Your task to perform on an android device: open chrome privacy settings Image 0: 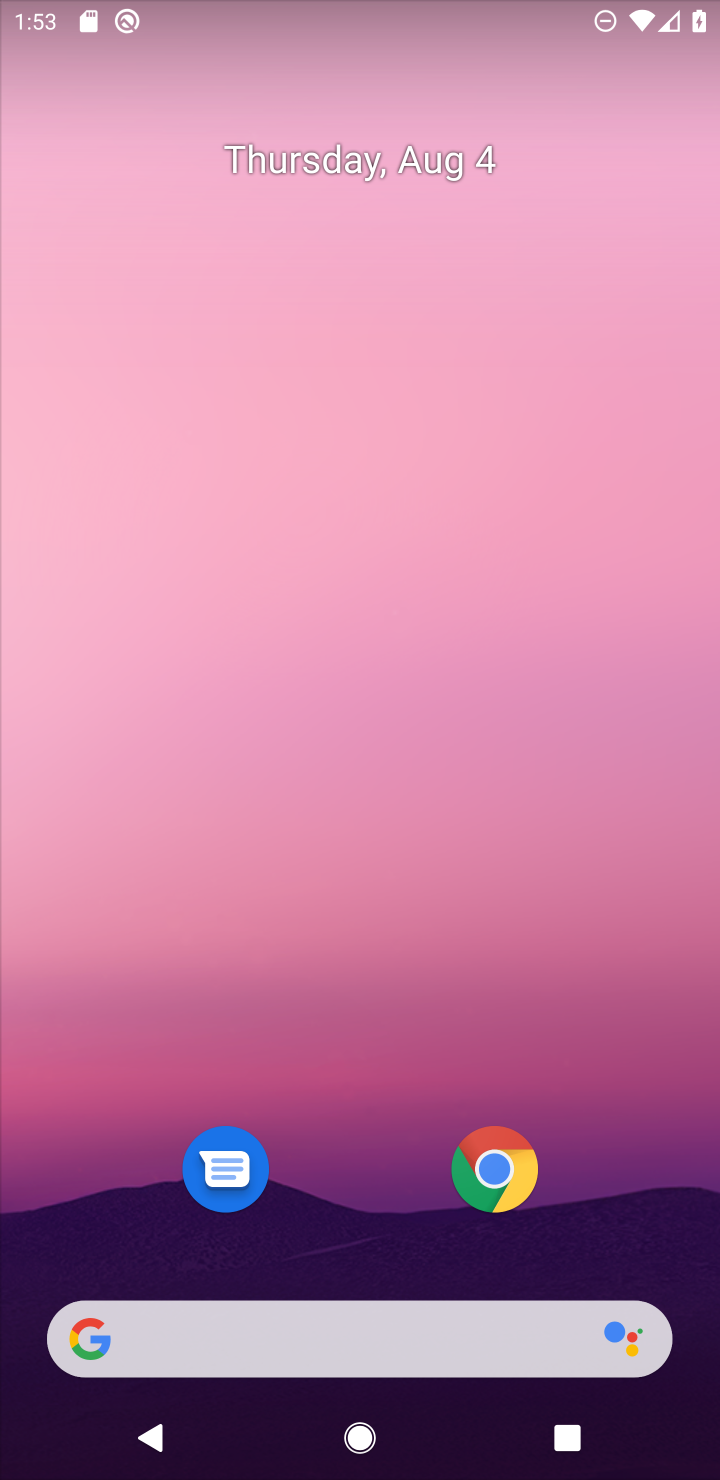
Step 0: click (501, 1187)
Your task to perform on an android device: open chrome privacy settings Image 1: 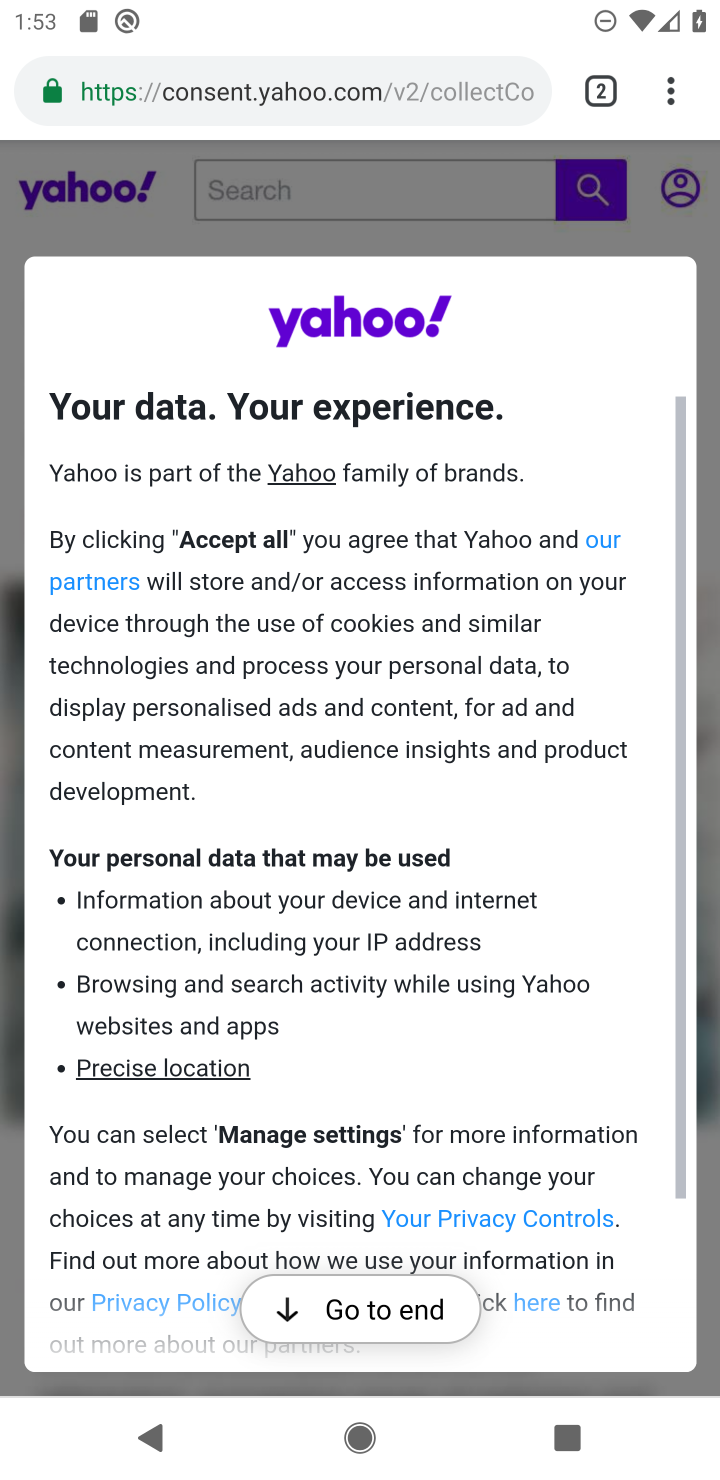
Step 1: click (672, 87)
Your task to perform on an android device: open chrome privacy settings Image 2: 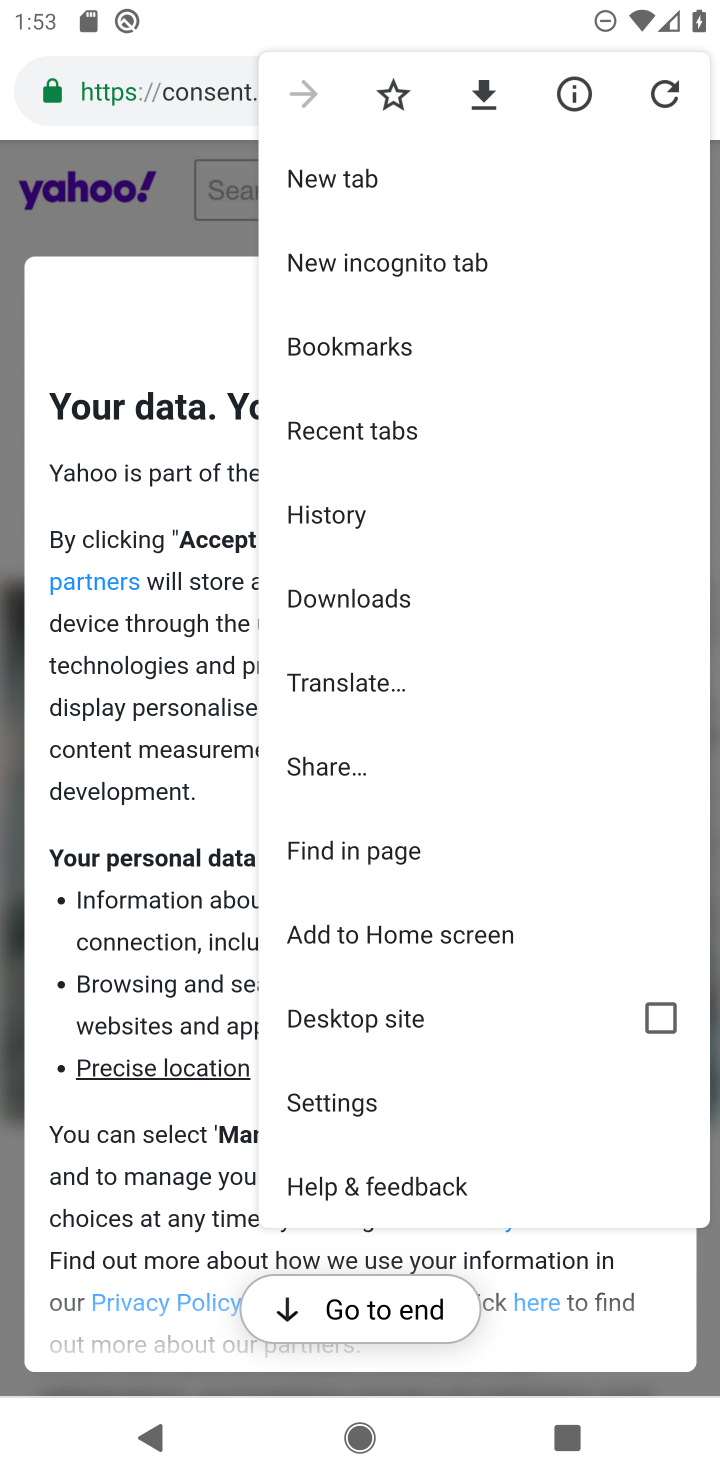
Step 2: click (347, 1114)
Your task to perform on an android device: open chrome privacy settings Image 3: 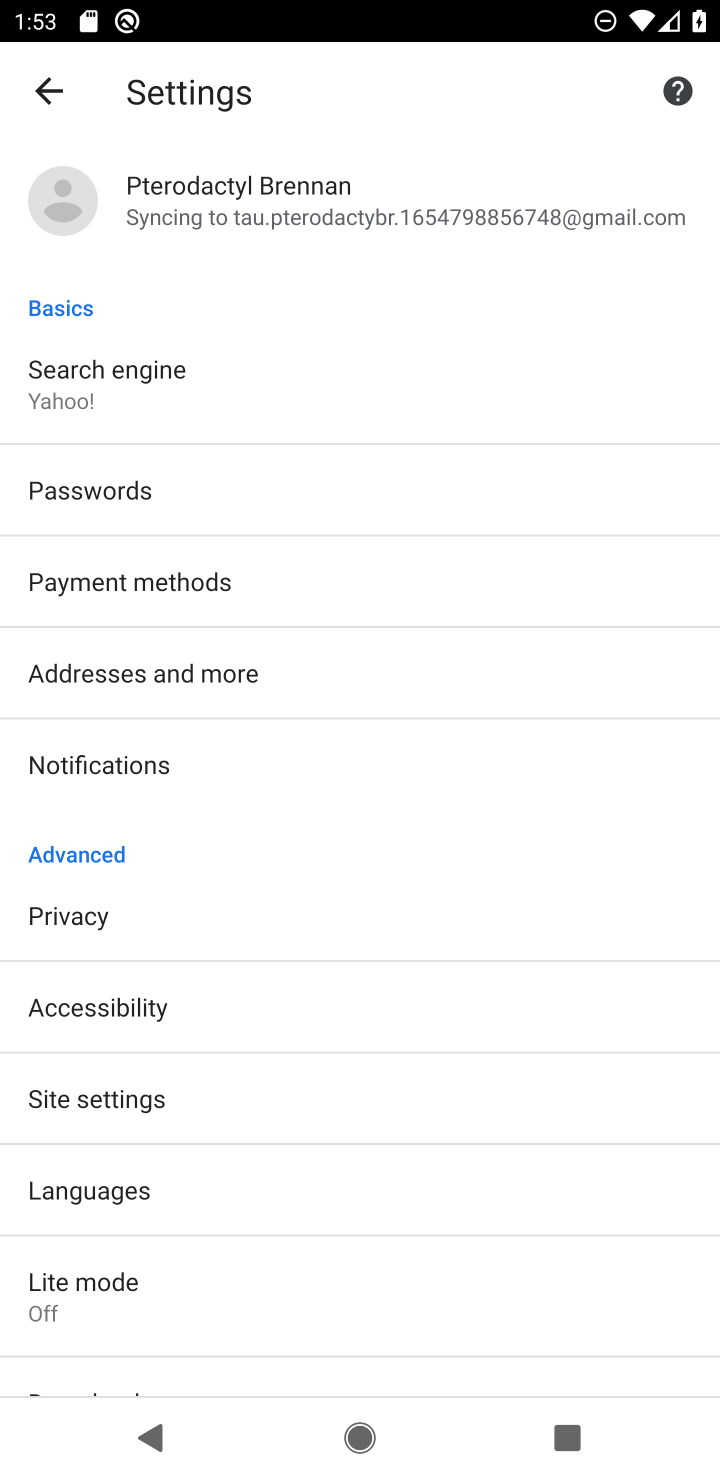
Step 3: click (83, 914)
Your task to perform on an android device: open chrome privacy settings Image 4: 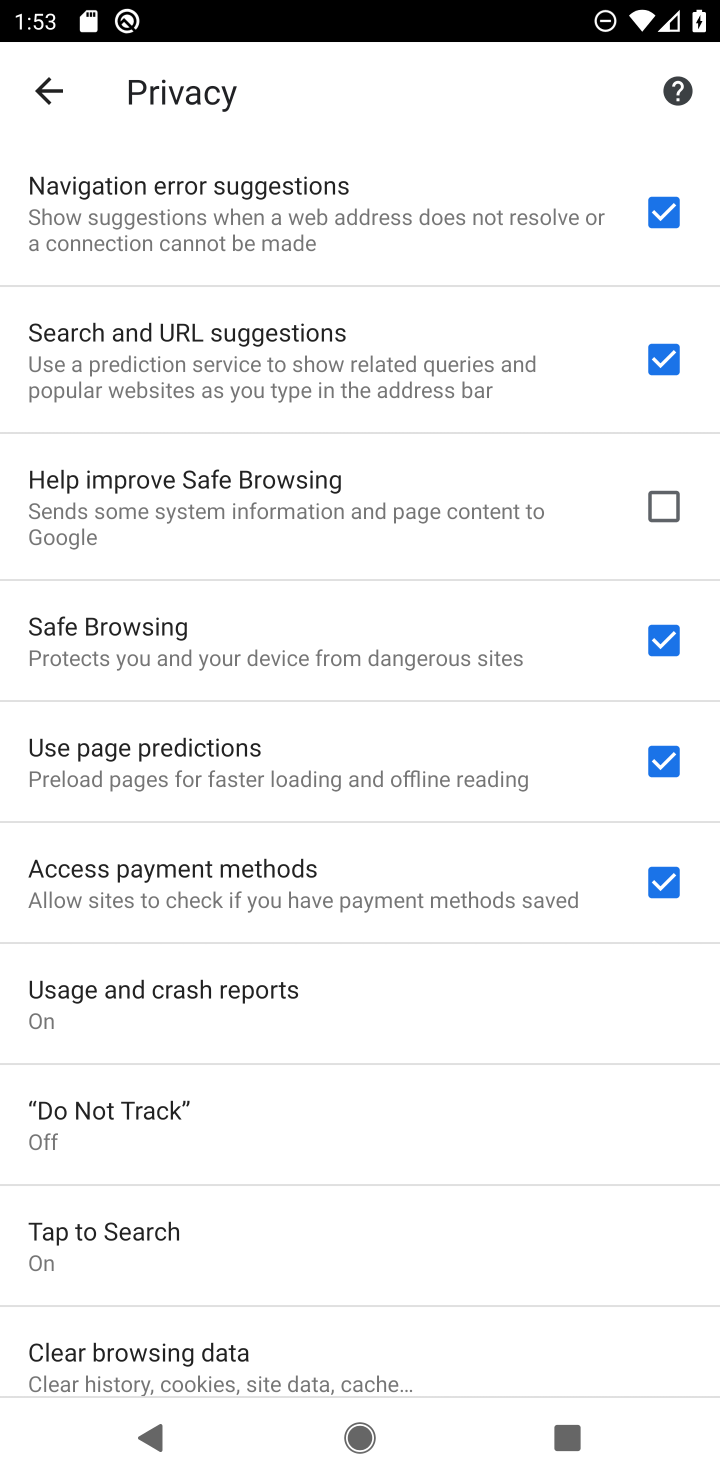
Step 4: task complete